Your task to perform on an android device: Go to Yahoo.com Image 0: 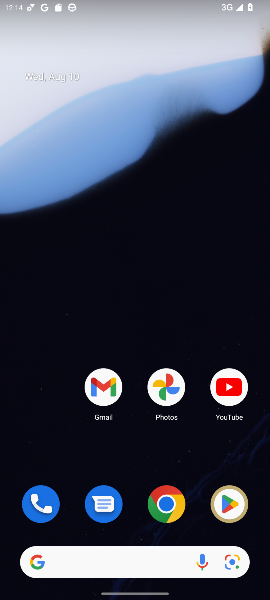
Step 0: press home button
Your task to perform on an android device: Go to Yahoo.com Image 1: 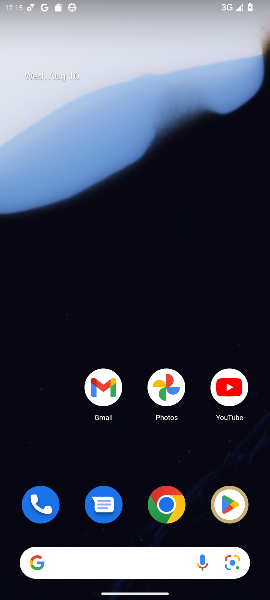
Step 1: drag from (141, 522) to (180, 227)
Your task to perform on an android device: Go to Yahoo.com Image 2: 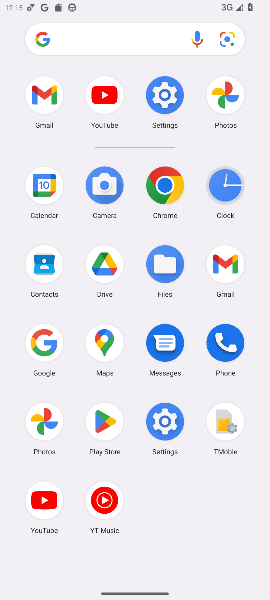
Step 2: click (52, 353)
Your task to perform on an android device: Go to Yahoo.com Image 3: 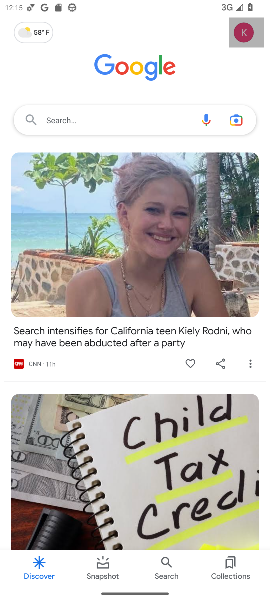
Step 3: click (90, 123)
Your task to perform on an android device: Go to Yahoo.com Image 4: 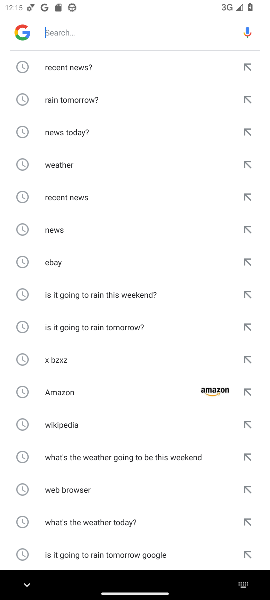
Step 4: type "Yahoo.com"
Your task to perform on an android device: Go to Yahoo.com Image 5: 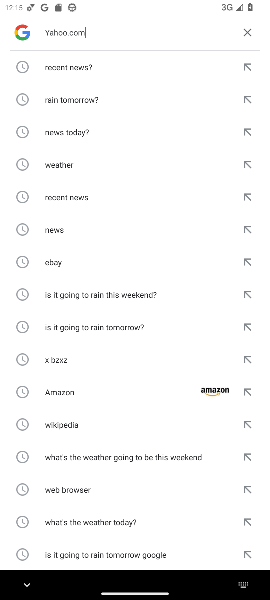
Step 5: press enter
Your task to perform on an android device: Go to Yahoo.com Image 6: 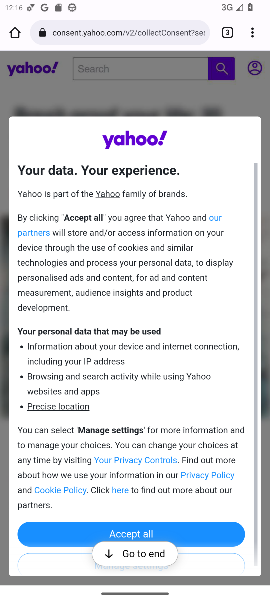
Step 6: click (98, 536)
Your task to perform on an android device: Go to Yahoo.com Image 7: 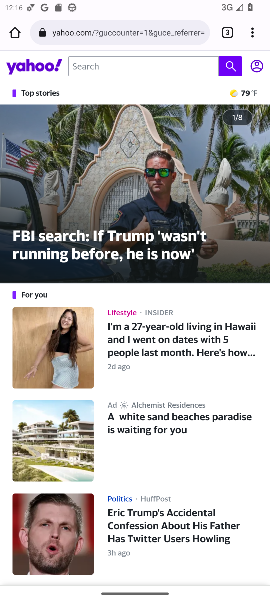
Step 7: task complete